Your task to perform on an android device: see sites visited before in the chrome app Image 0: 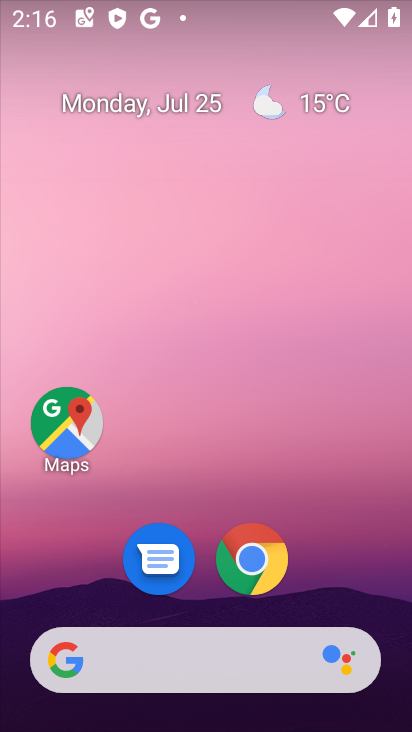
Step 0: click (251, 555)
Your task to perform on an android device: see sites visited before in the chrome app Image 1: 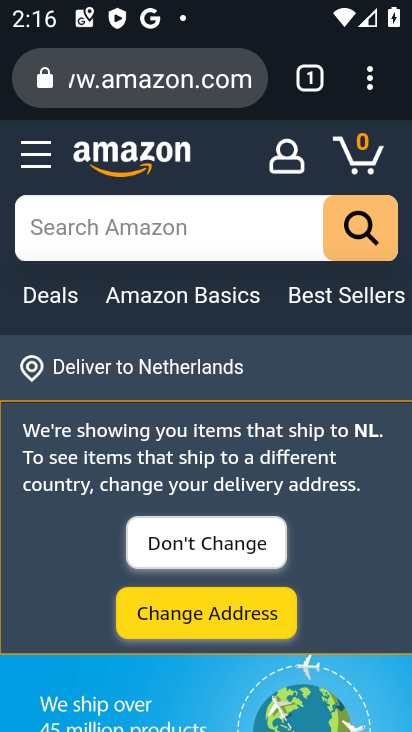
Step 1: task complete